Your task to perform on an android device: Search for Mexican restaurants on Maps Image 0: 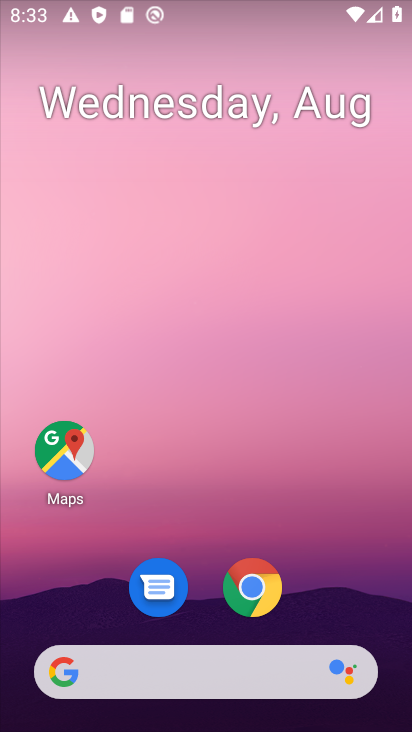
Step 0: drag from (238, 687) to (214, 312)
Your task to perform on an android device: Search for Mexican restaurants on Maps Image 1: 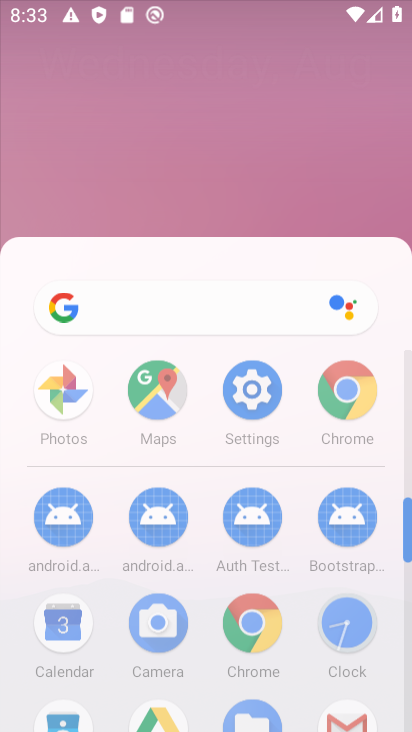
Step 1: drag from (239, 696) to (159, 327)
Your task to perform on an android device: Search for Mexican restaurants on Maps Image 2: 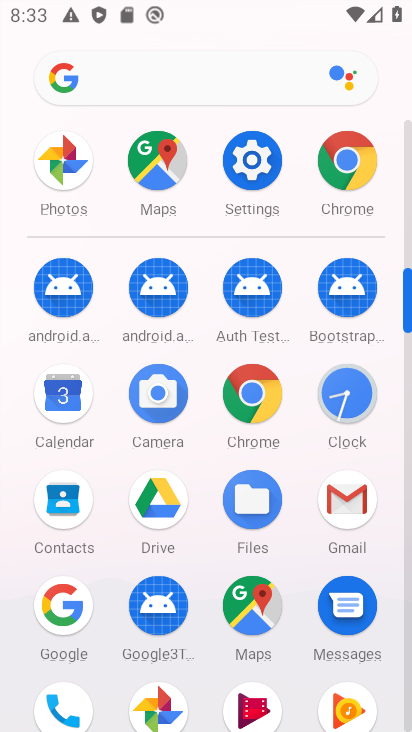
Step 2: click (263, 593)
Your task to perform on an android device: Search for Mexican restaurants on Maps Image 3: 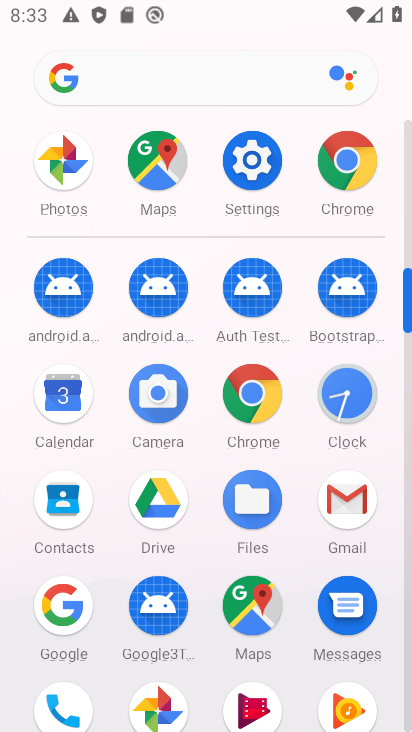
Step 3: click (258, 598)
Your task to perform on an android device: Search for Mexican restaurants on Maps Image 4: 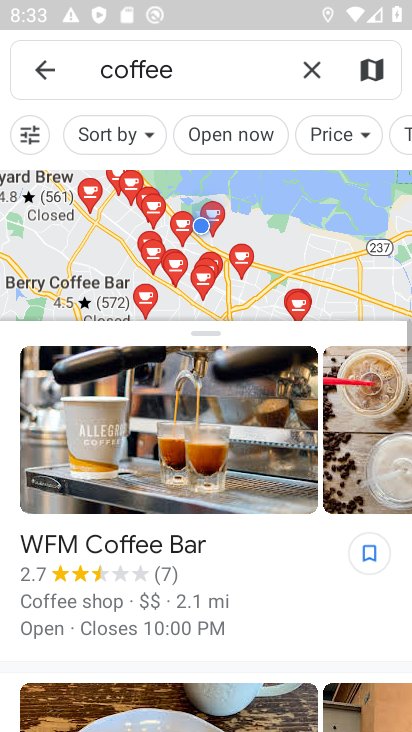
Step 4: click (303, 65)
Your task to perform on an android device: Search for Mexican restaurants on Maps Image 5: 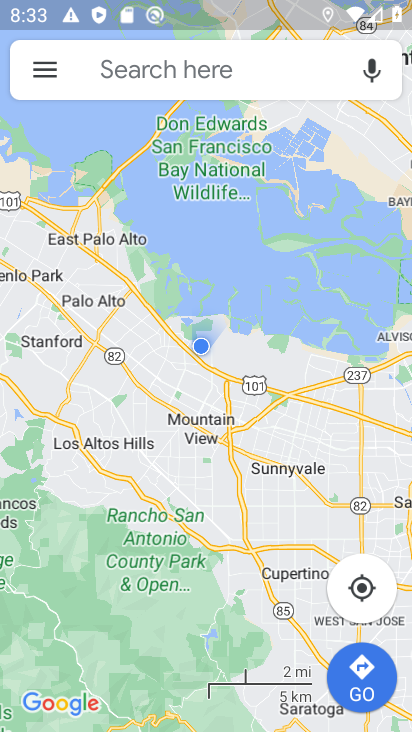
Step 5: click (98, 61)
Your task to perform on an android device: Search for Mexican restaurants on Maps Image 6: 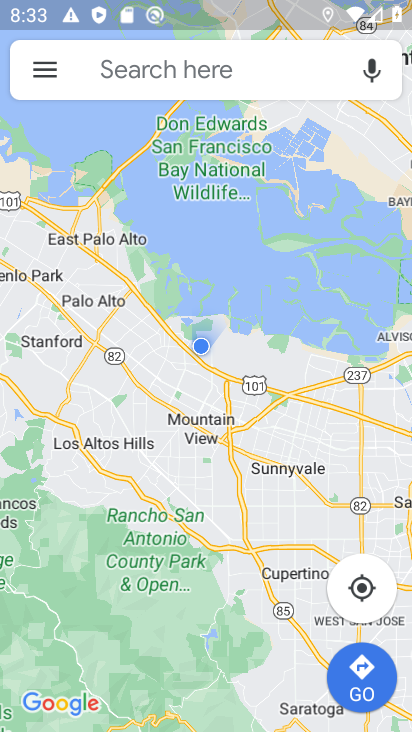
Step 6: click (141, 72)
Your task to perform on an android device: Search for Mexican restaurants on Maps Image 7: 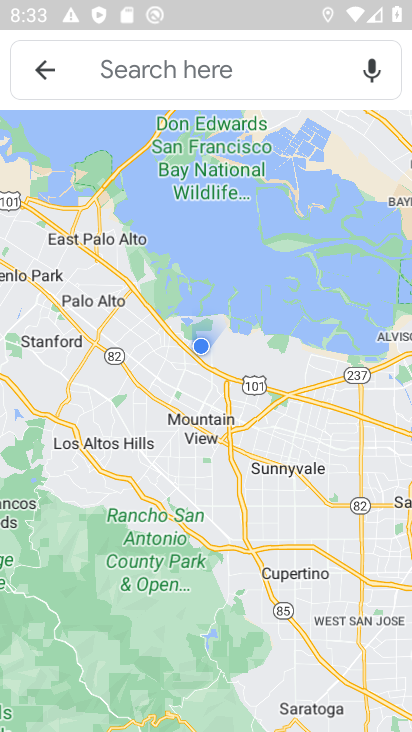
Step 7: click (142, 66)
Your task to perform on an android device: Search for Mexican restaurants on Maps Image 8: 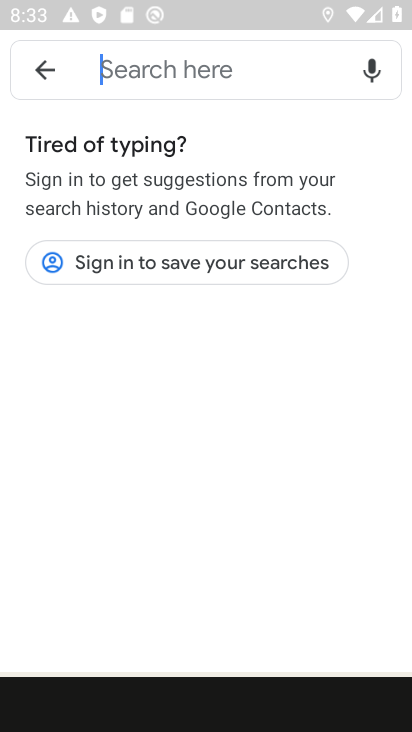
Step 8: click (145, 70)
Your task to perform on an android device: Search for Mexican restaurants on Maps Image 9: 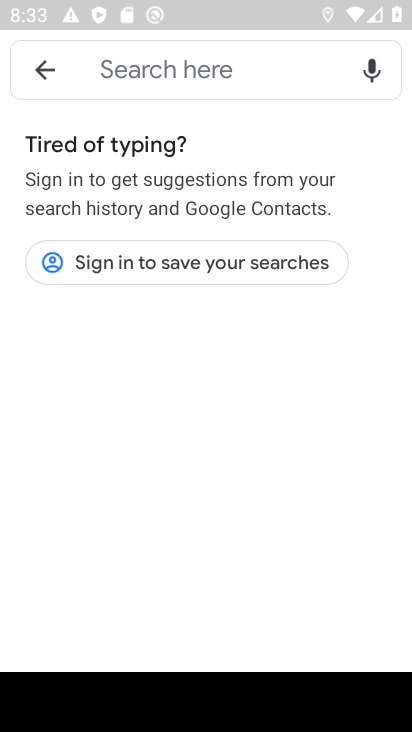
Step 9: click (144, 69)
Your task to perform on an android device: Search for Mexican restaurants on Maps Image 10: 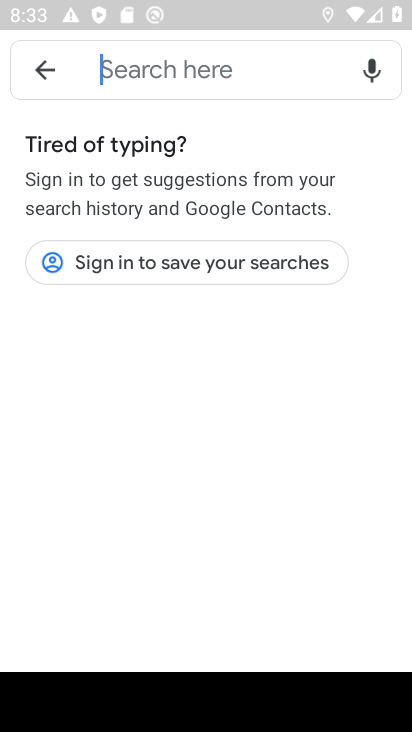
Step 10: type "mexican restaurants"
Your task to perform on an android device: Search for Mexican restaurants on Maps Image 11: 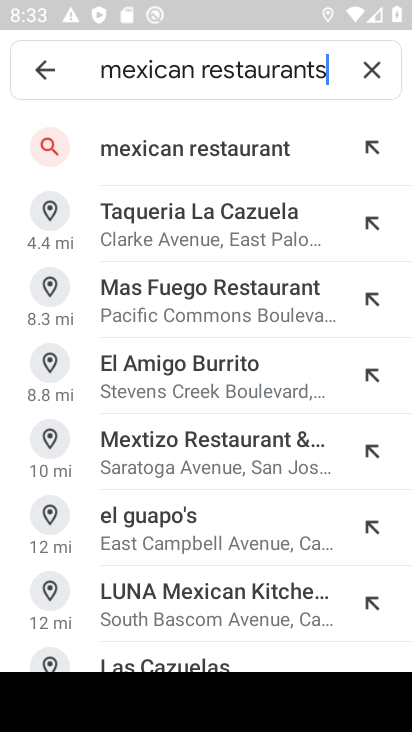
Step 11: click (176, 153)
Your task to perform on an android device: Search for Mexican restaurants on Maps Image 12: 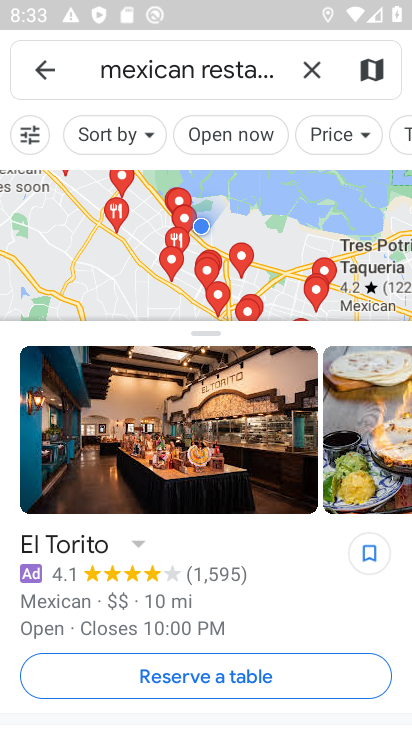
Step 12: task complete